Your task to perform on an android device: Search for seafood restaurants on Google Maps Image 0: 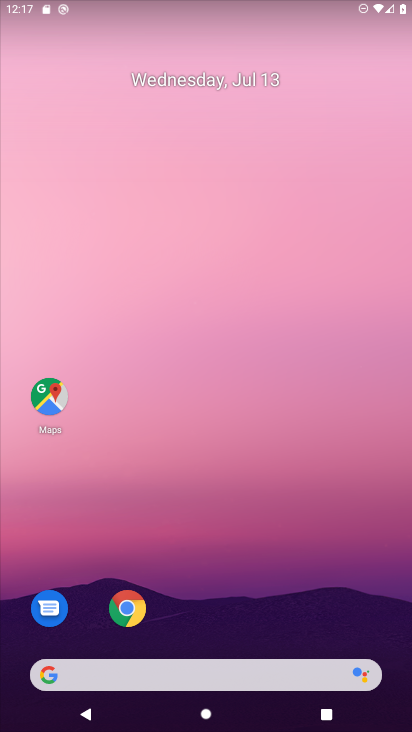
Step 0: click (36, 409)
Your task to perform on an android device: Search for seafood restaurants on Google Maps Image 1: 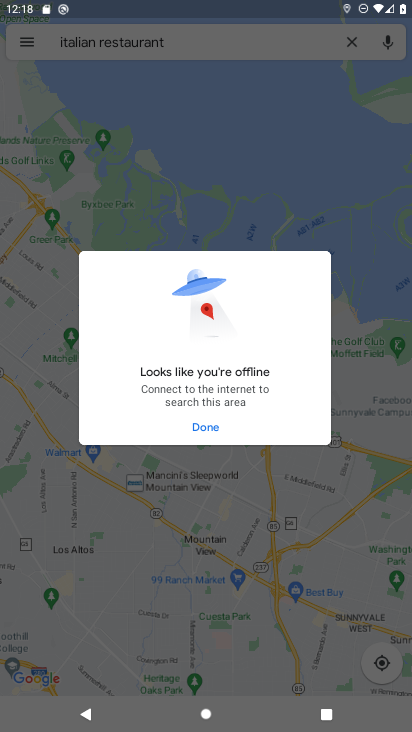
Step 1: click (203, 424)
Your task to perform on an android device: Search for seafood restaurants on Google Maps Image 2: 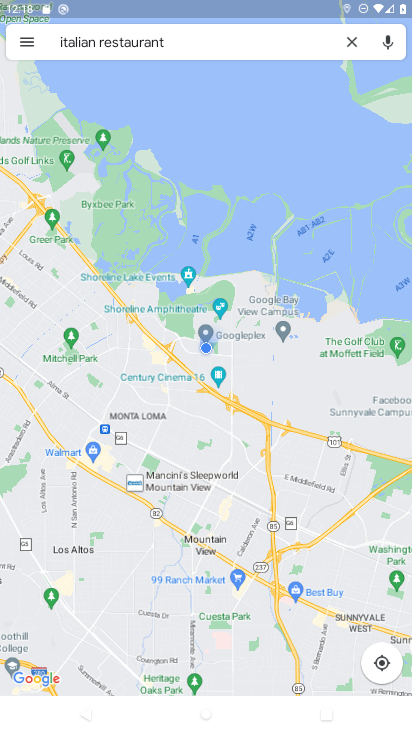
Step 2: click (138, 44)
Your task to perform on an android device: Search for seafood restaurants on Google Maps Image 3: 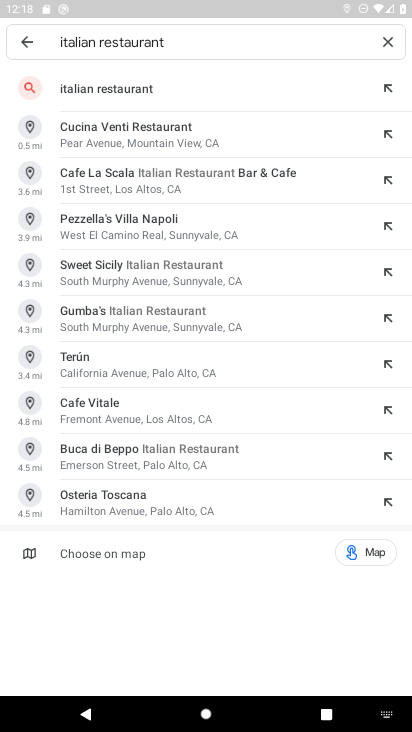
Step 3: click (391, 40)
Your task to perform on an android device: Search for seafood restaurants on Google Maps Image 4: 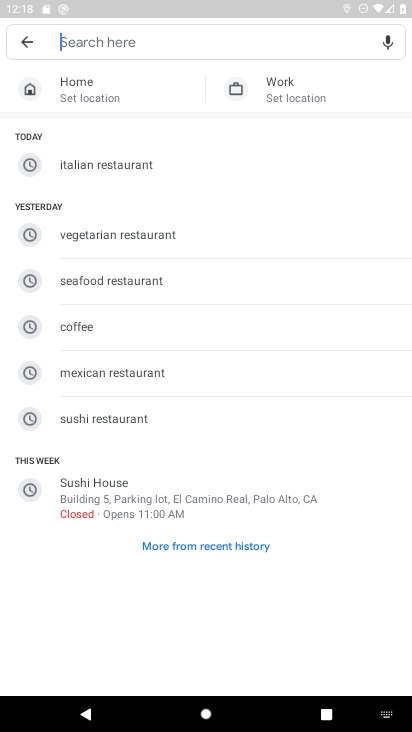
Step 4: click (140, 293)
Your task to perform on an android device: Search for seafood restaurants on Google Maps Image 5: 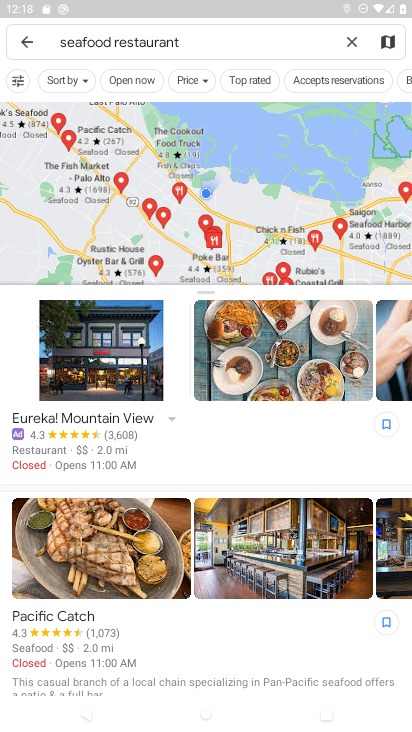
Step 5: task complete